Your task to perform on an android device: Open calendar and show me the third week of next month Image 0: 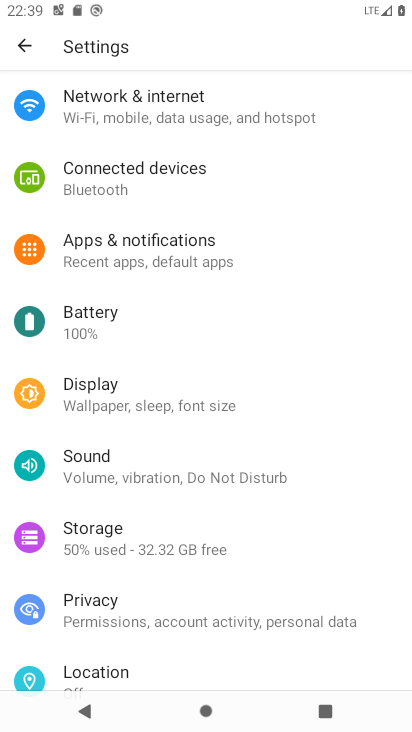
Step 0: press home button
Your task to perform on an android device: Open calendar and show me the third week of next month Image 1: 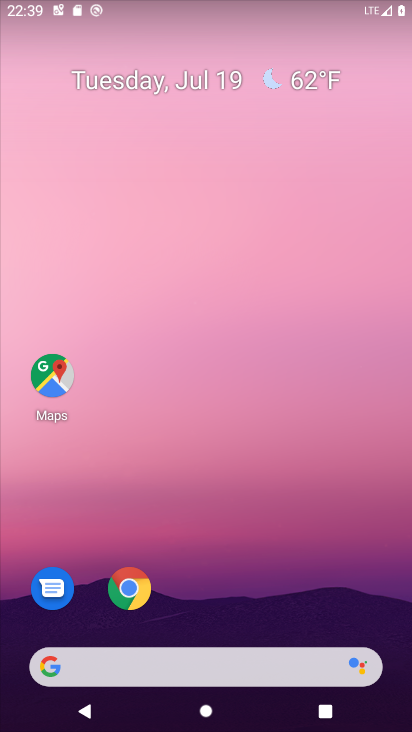
Step 1: drag from (182, 612) to (198, 51)
Your task to perform on an android device: Open calendar and show me the third week of next month Image 2: 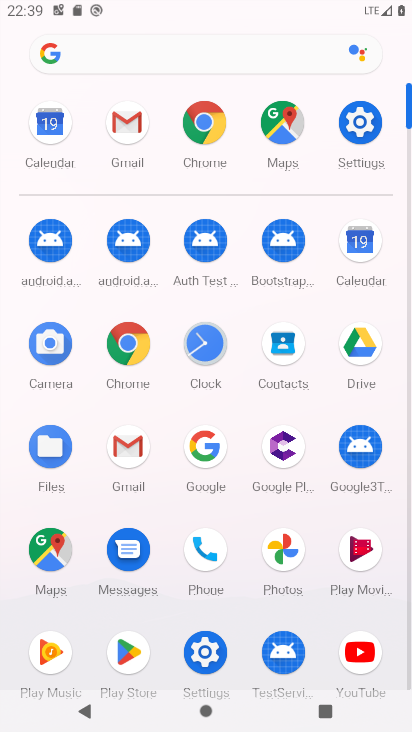
Step 2: click (358, 241)
Your task to perform on an android device: Open calendar and show me the third week of next month Image 3: 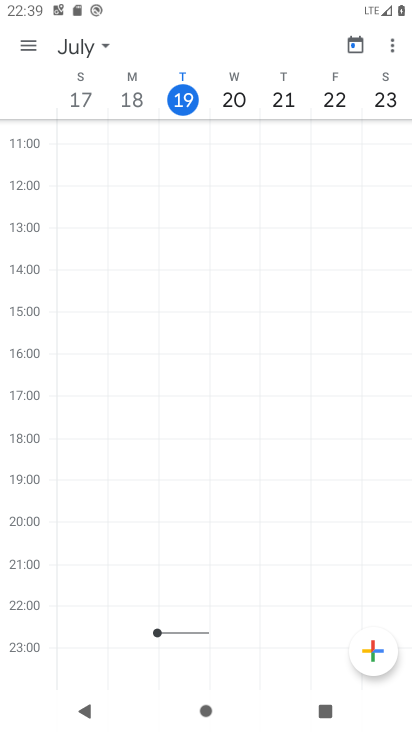
Step 3: click (92, 59)
Your task to perform on an android device: Open calendar and show me the third week of next month Image 4: 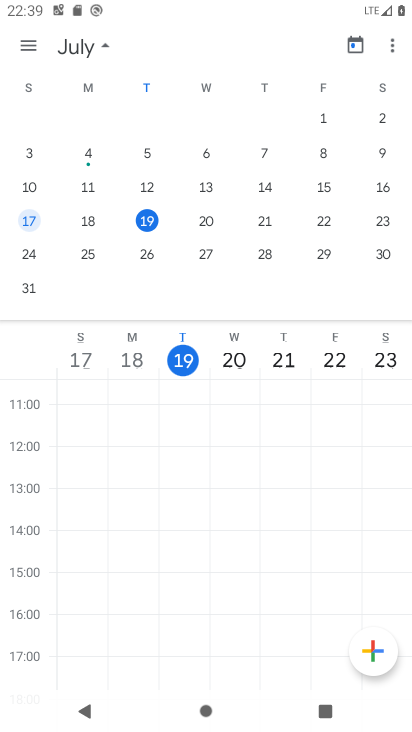
Step 4: drag from (222, 205) to (2, 204)
Your task to perform on an android device: Open calendar and show me the third week of next month Image 5: 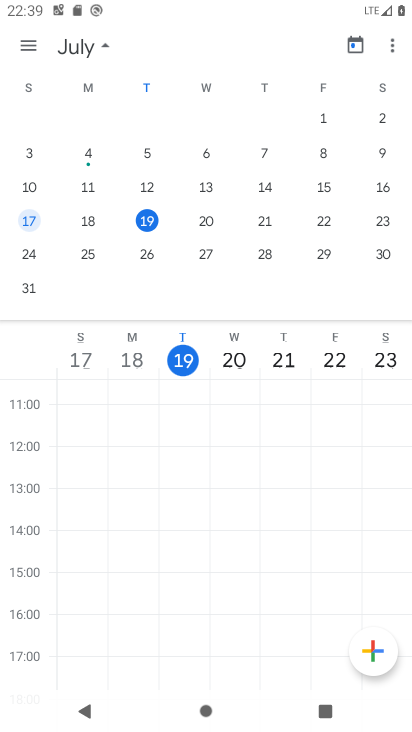
Step 5: drag from (219, 187) to (23, 169)
Your task to perform on an android device: Open calendar and show me the third week of next month Image 6: 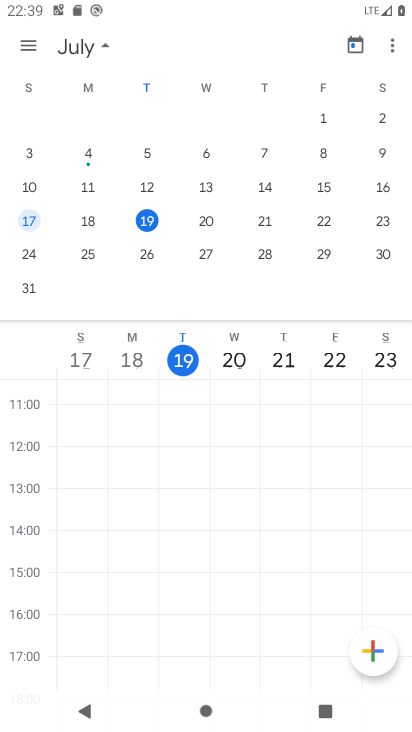
Step 6: drag from (284, 182) to (45, 201)
Your task to perform on an android device: Open calendar and show me the third week of next month Image 7: 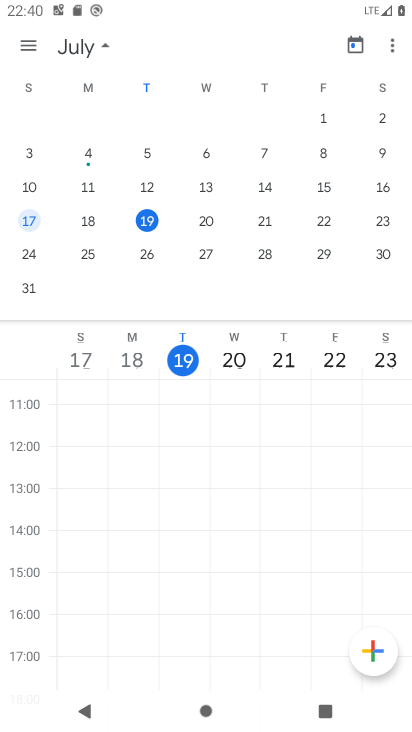
Step 7: drag from (322, 174) to (10, 174)
Your task to perform on an android device: Open calendar and show me the third week of next month Image 8: 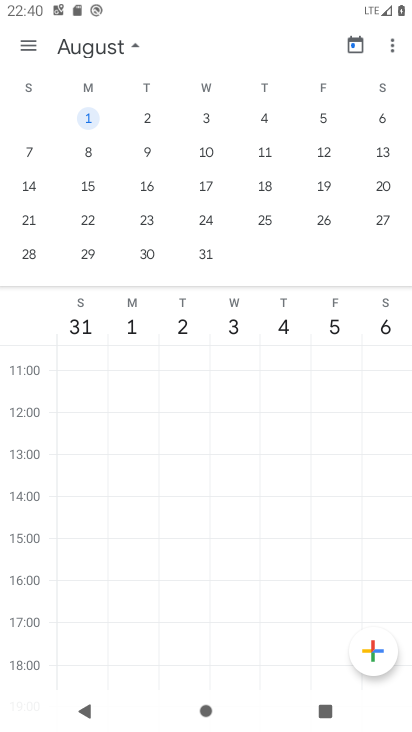
Step 8: click (29, 188)
Your task to perform on an android device: Open calendar and show me the third week of next month Image 9: 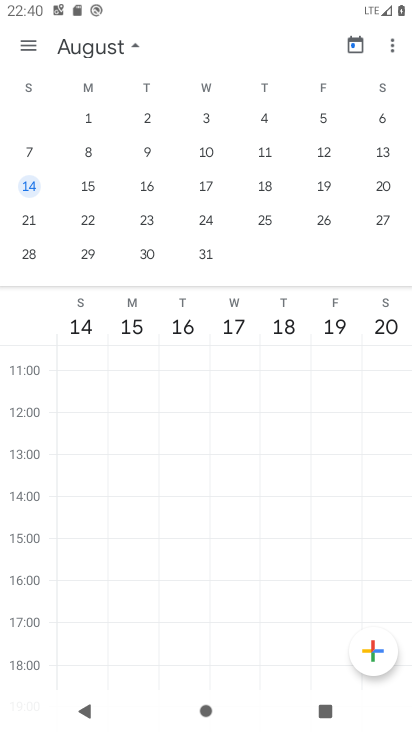
Step 9: task complete